Your task to perform on an android device: turn on the 12-hour format for clock Image 0: 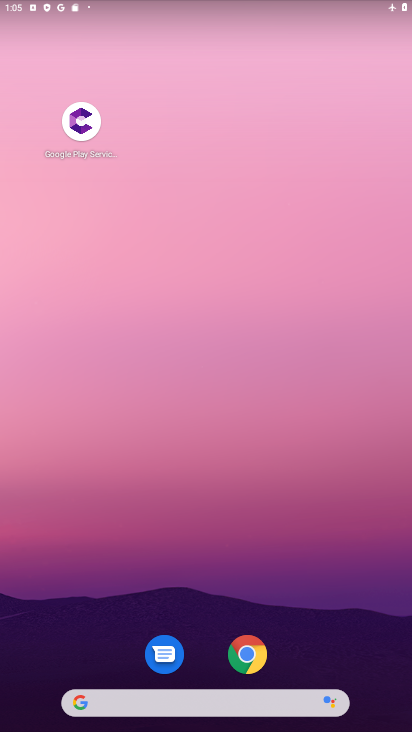
Step 0: drag from (295, 500) to (266, 76)
Your task to perform on an android device: turn on the 12-hour format for clock Image 1: 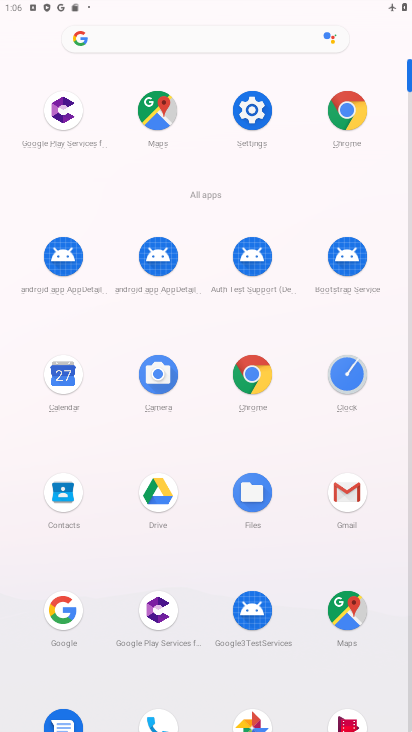
Step 1: click (353, 380)
Your task to perform on an android device: turn on the 12-hour format for clock Image 2: 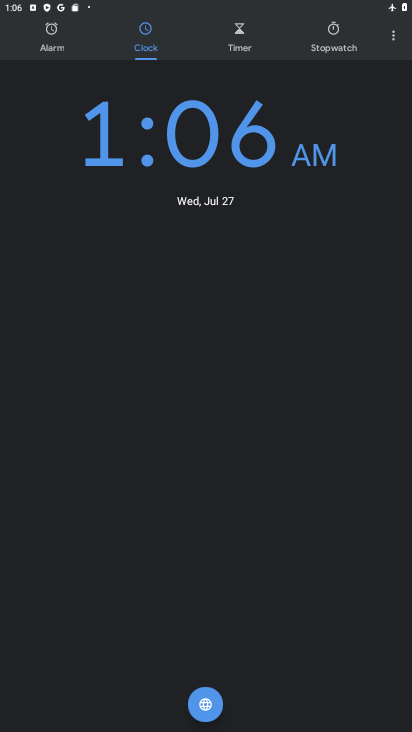
Step 2: click (382, 40)
Your task to perform on an android device: turn on the 12-hour format for clock Image 3: 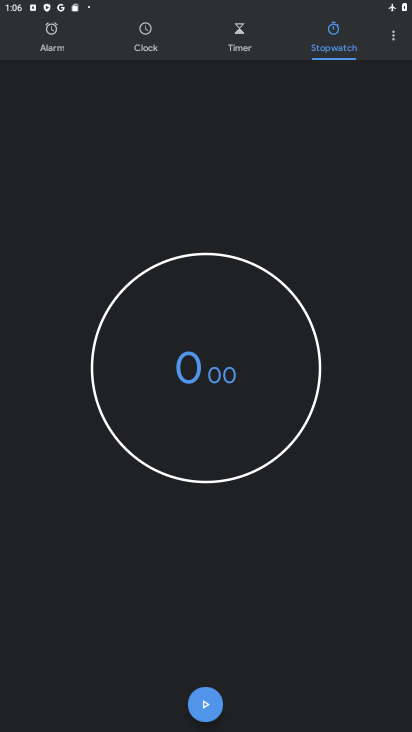
Step 3: click (384, 45)
Your task to perform on an android device: turn on the 12-hour format for clock Image 4: 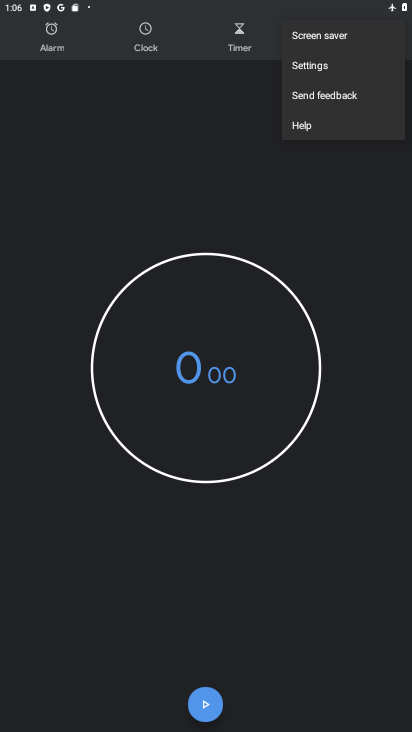
Step 4: click (342, 63)
Your task to perform on an android device: turn on the 12-hour format for clock Image 5: 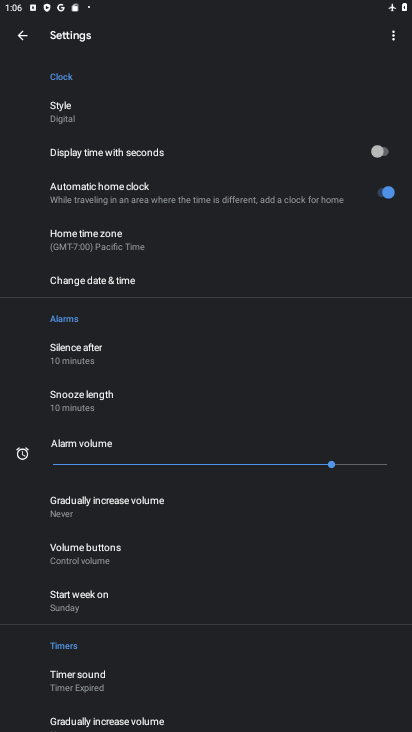
Step 5: click (127, 290)
Your task to perform on an android device: turn on the 12-hour format for clock Image 6: 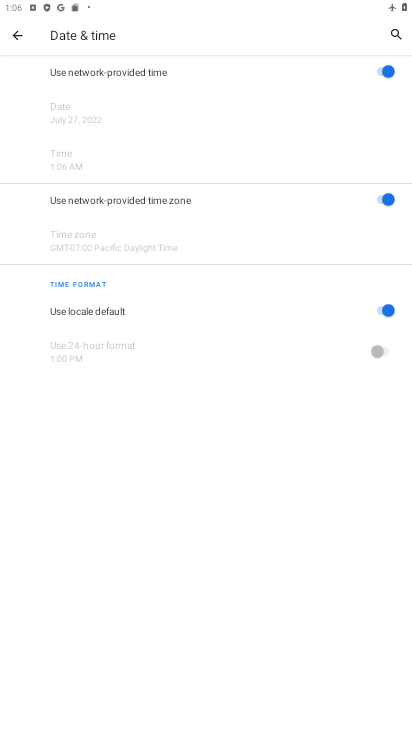
Step 6: click (379, 351)
Your task to perform on an android device: turn on the 12-hour format for clock Image 7: 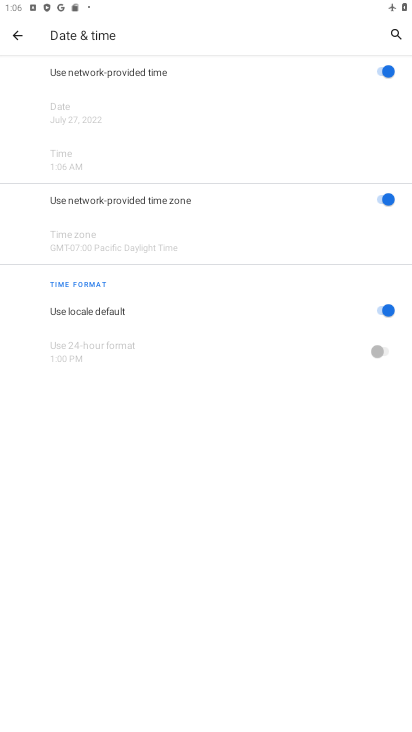
Step 7: click (382, 303)
Your task to perform on an android device: turn on the 12-hour format for clock Image 8: 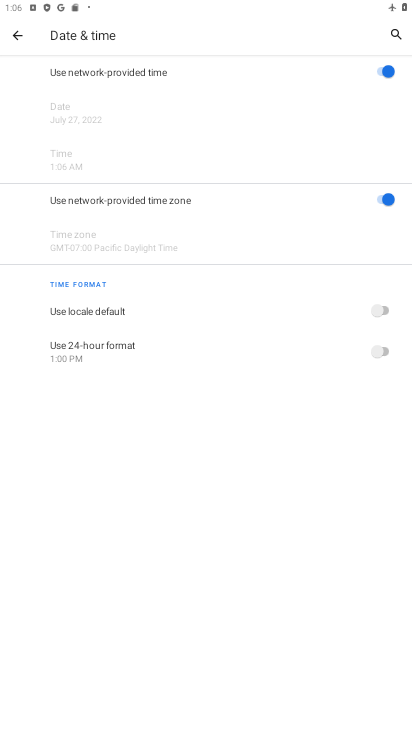
Step 8: click (389, 351)
Your task to perform on an android device: turn on the 12-hour format for clock Image 9: 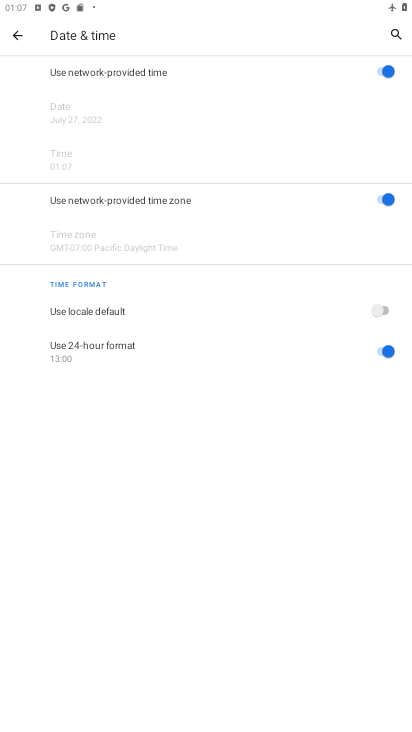
Step 9: task complete